Your task to perform on an android device: Toggle the flashlight Image 0: 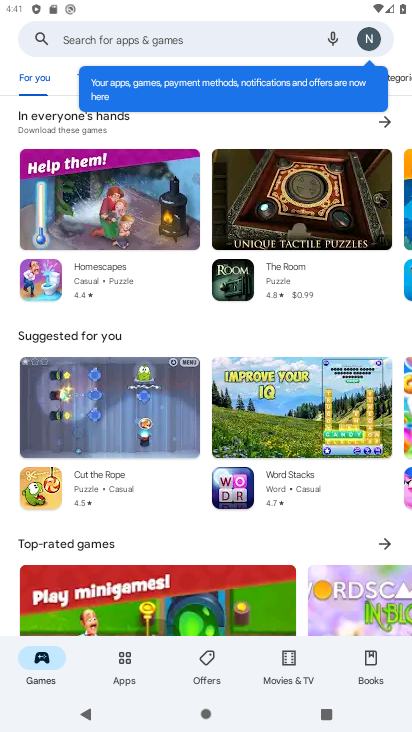
Step 0: press home button
Your task to perform on an android device: Toggle the flashlight Image 1: 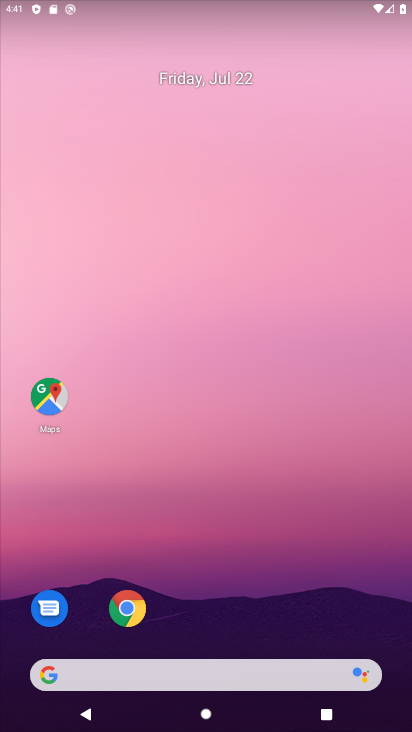
Step 1: drag from (188, 626) to (199, 71)
Your task to perform on an android device: Toggle the flashlight Image 2: 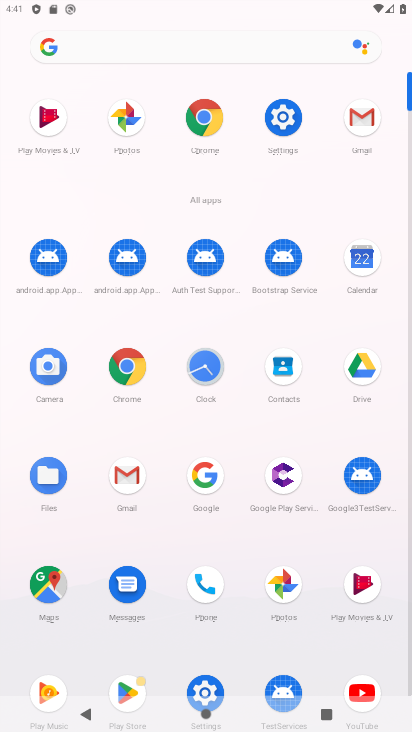
Step 2: click (210, 678)
Your task to perform on an android device: Toggle the flashlight Image 3: 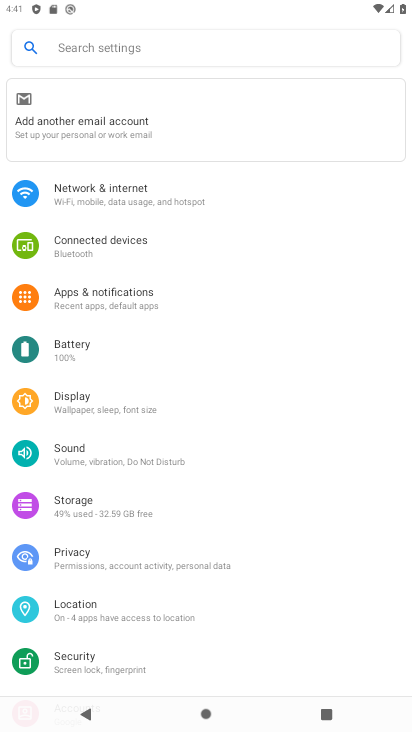
Step 3: task complete